Your task to perform on an android device: Check the news Image 0: 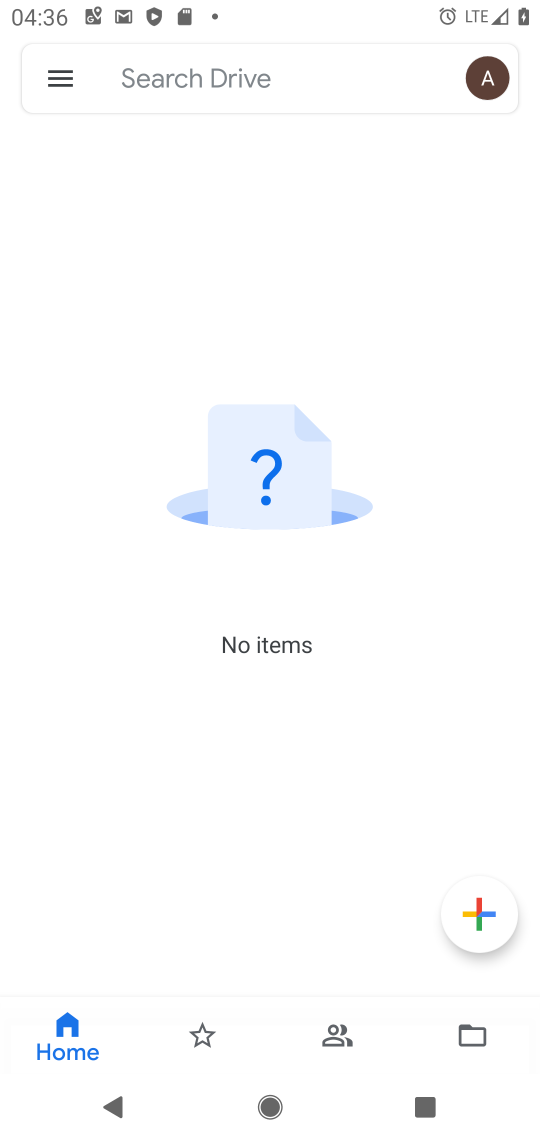
Step 0: press back button
Your task to perform on an android device: Check the news Image 1: 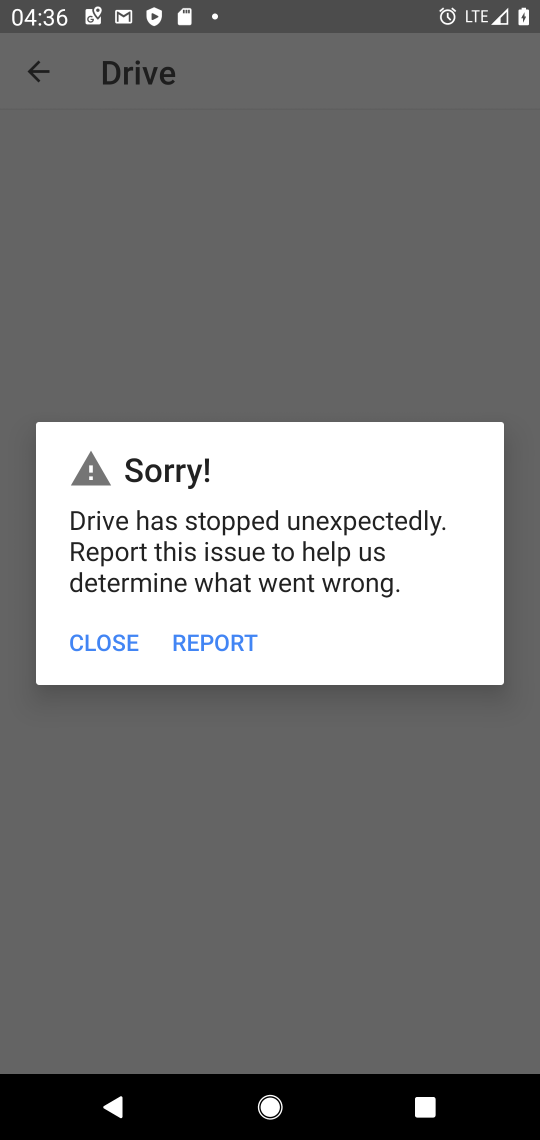
Step 1: press back button
Your task to perform on an android device: Check the news Image 2: 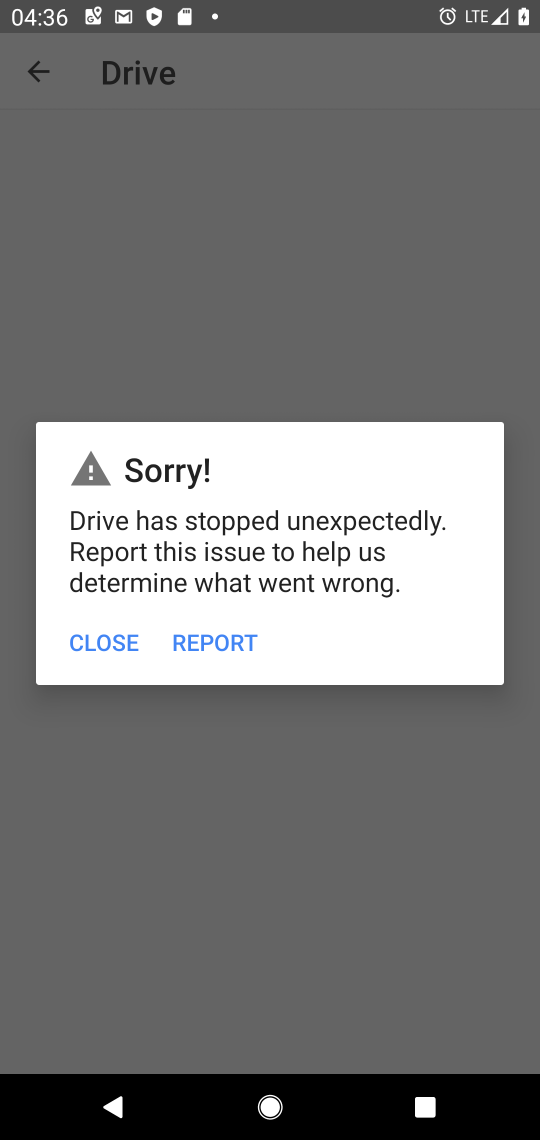
Step 2: press home button
Your task to perform on an android device: Check the news Image 3: 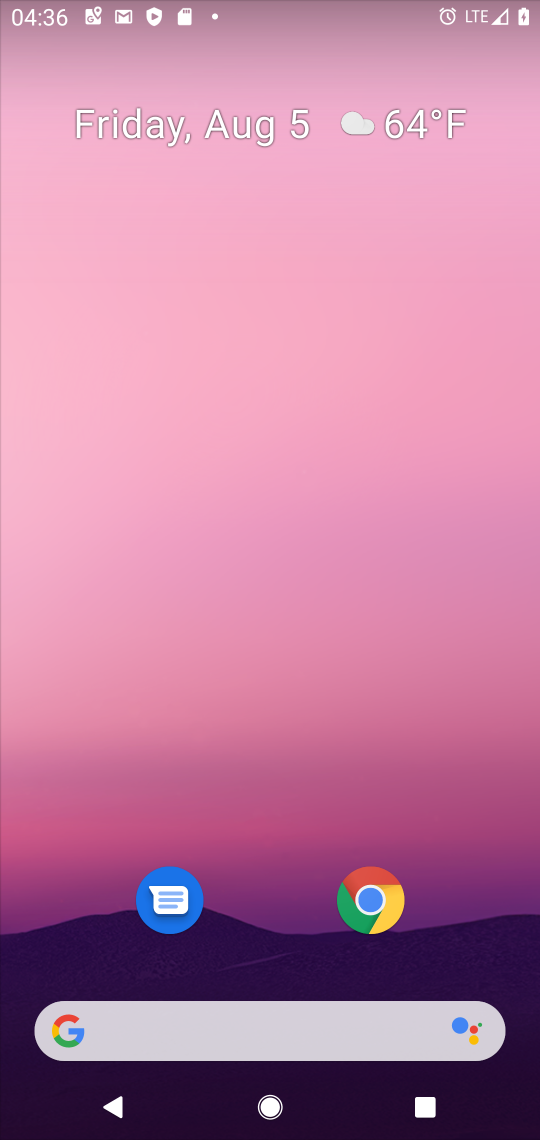
Step 3: click (271, 1020)
Your task to perform on an android device: Check the news Image 4: 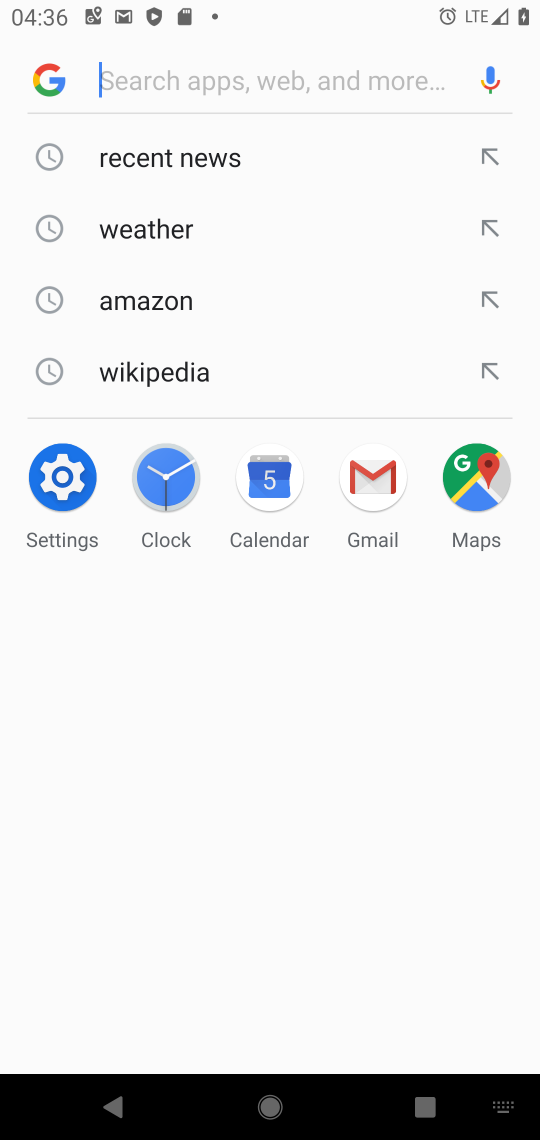
Step 4: click (158, 165)
Your task to perform on an android device: Check the news Image 5: 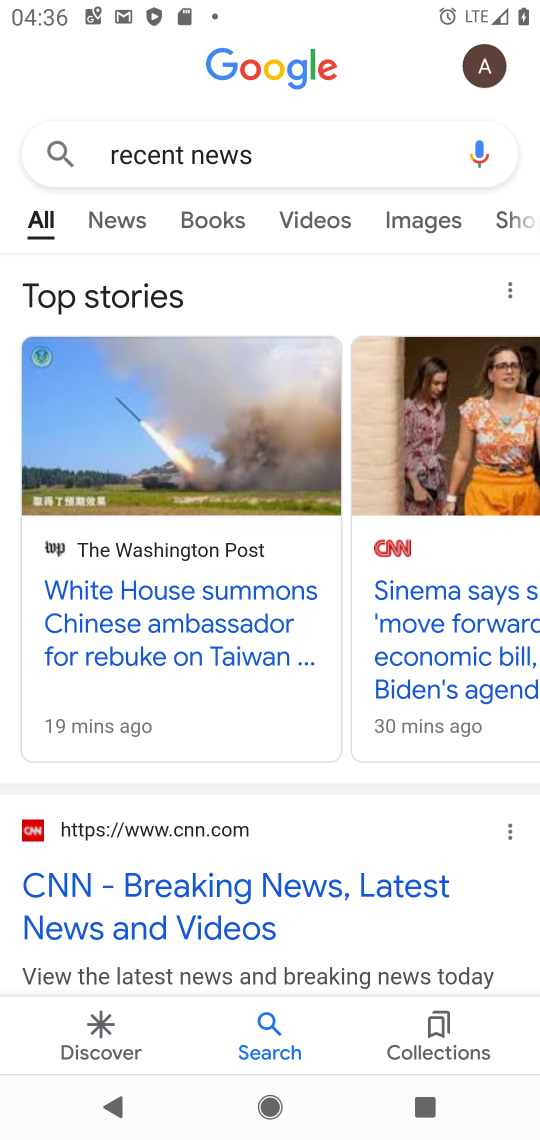
Step 5: task complete